Your task to perform on an android device: Open Amazon Image 0: 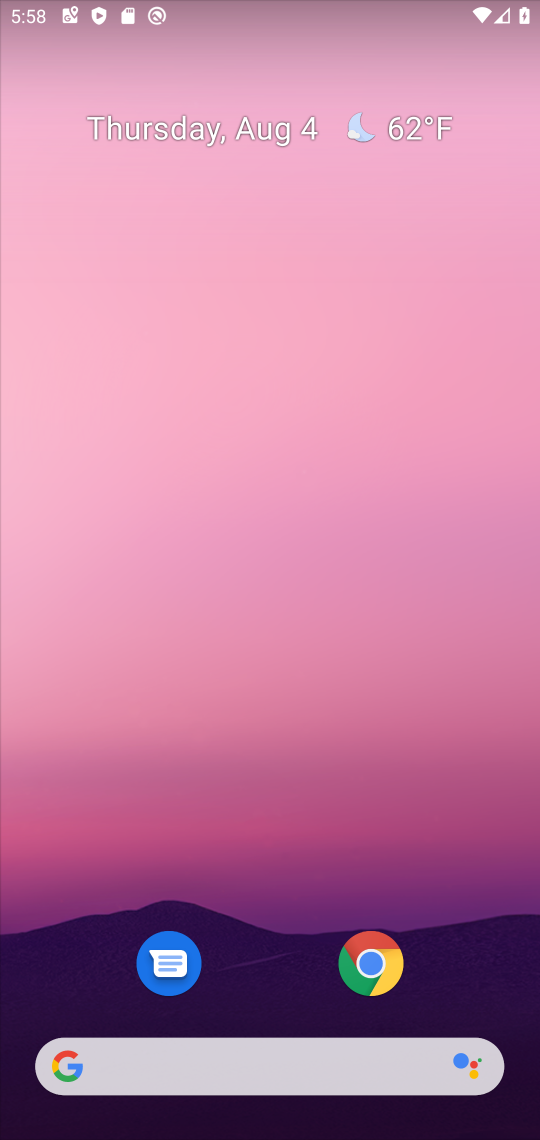
Step 0: drag from (302, 920) to (259, 392)
Your task to perform on an android device: Open Amazon Image 1: 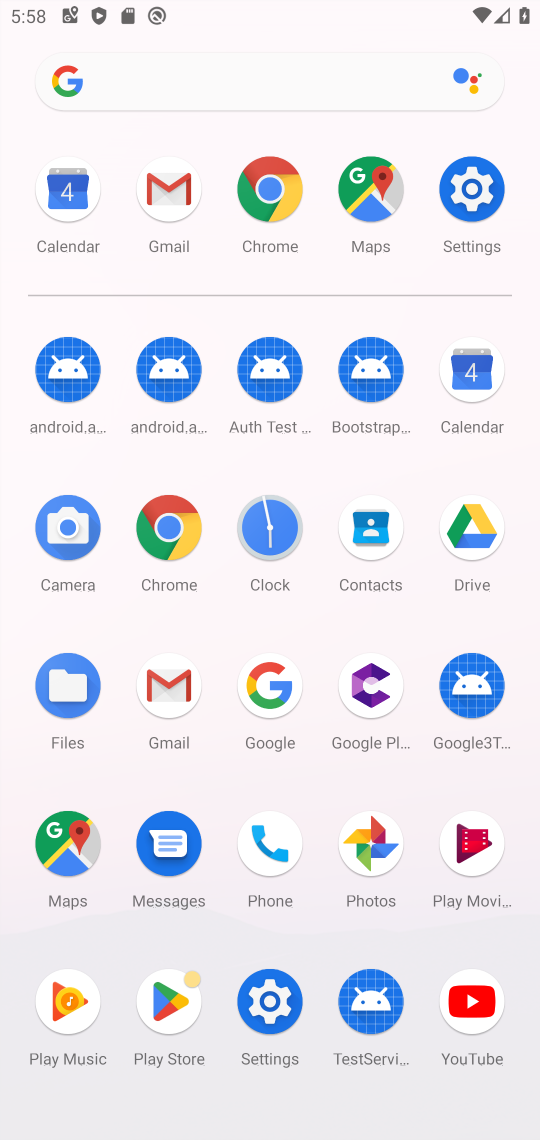
Step 1: click (266, 190)
Your task to perform on an android device: Open Amazon Image 2: 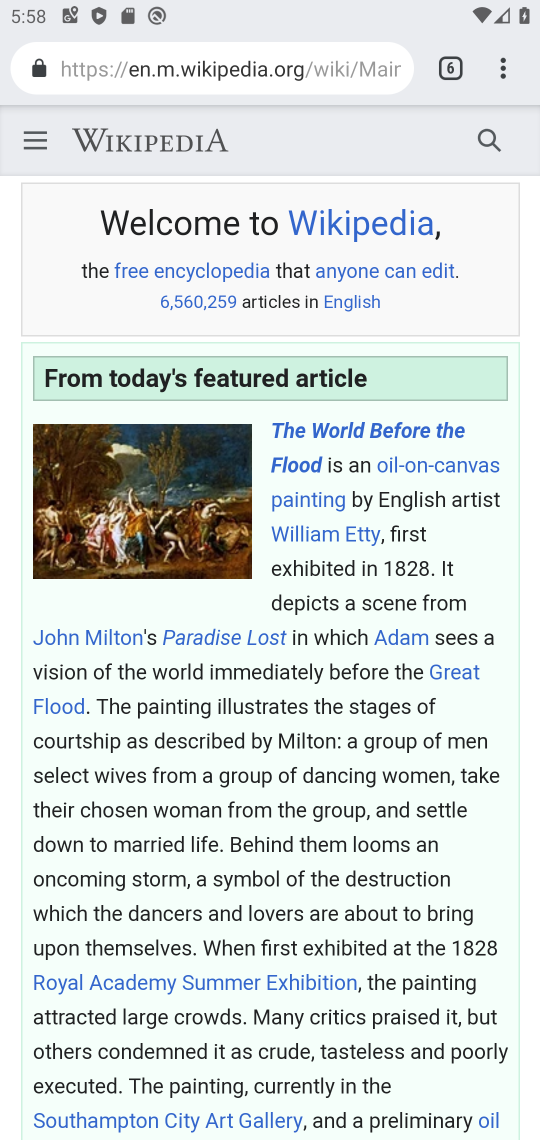
Step 2: click (509, 62)
Your task to perform on an android device: Open Amazon Image 3: 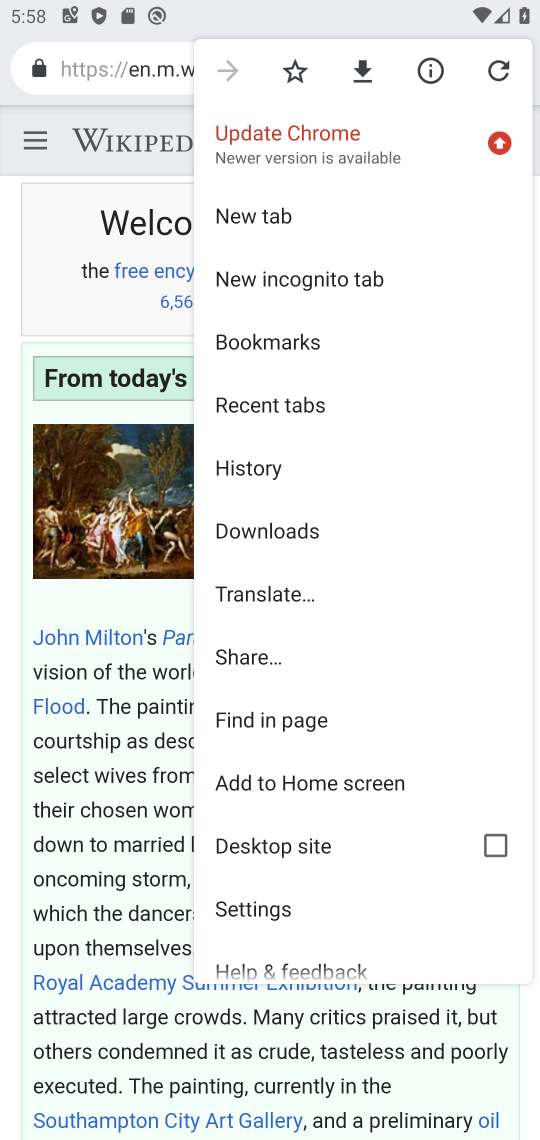
Step 3: click (269, 211)
Your task to perform on an android device: Open Amazon Image 4: 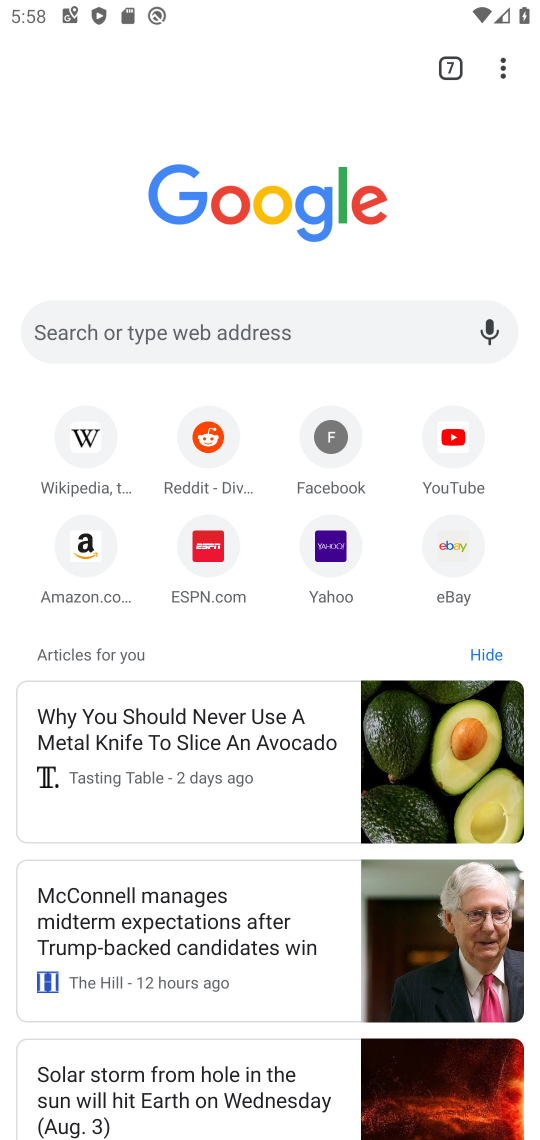
Step 4: click (78, 552)
Your task to perform on an android device: Open Amazon Image 5: 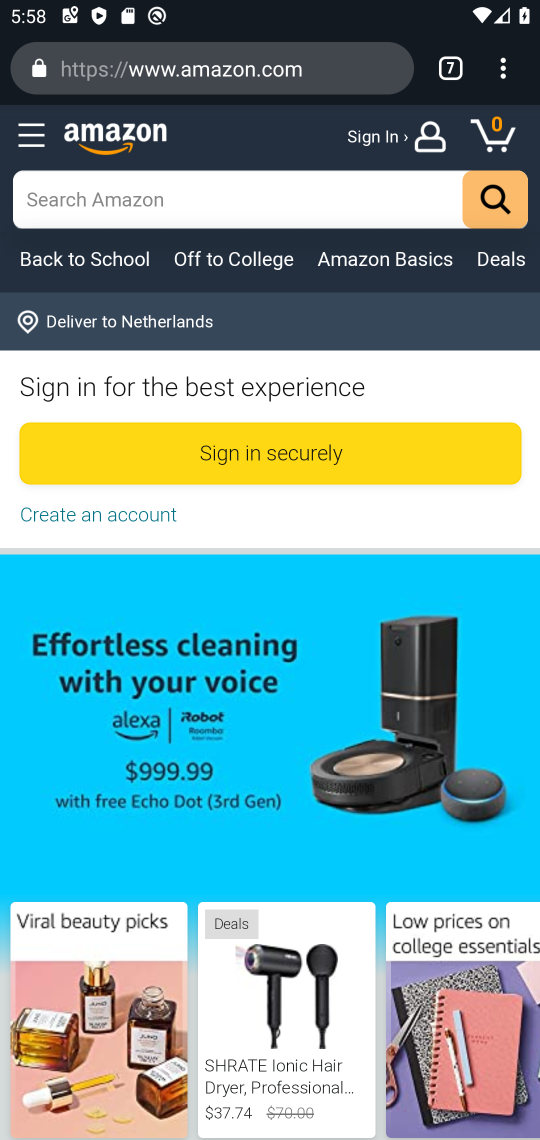
Step 5: task complete